Your task to perform on an android device: empty trash in google photos Image 0: 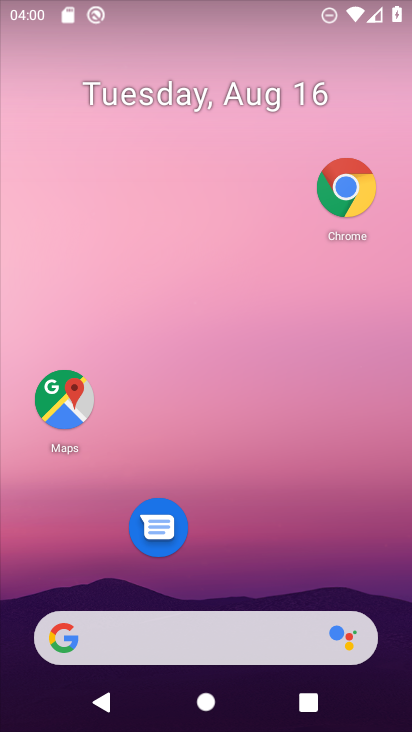
Step 0: drag from (232, 583) to (234, 23)
Your task to perform on an android device: empty trash in google photos Image 1: 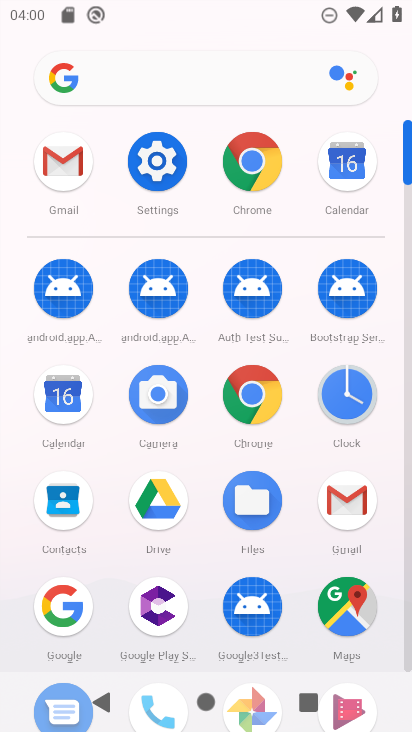
Step 1: drag from (204, 564) to (236, 126)
Your task to perform on an android device: empty trash in google photos Image 2: 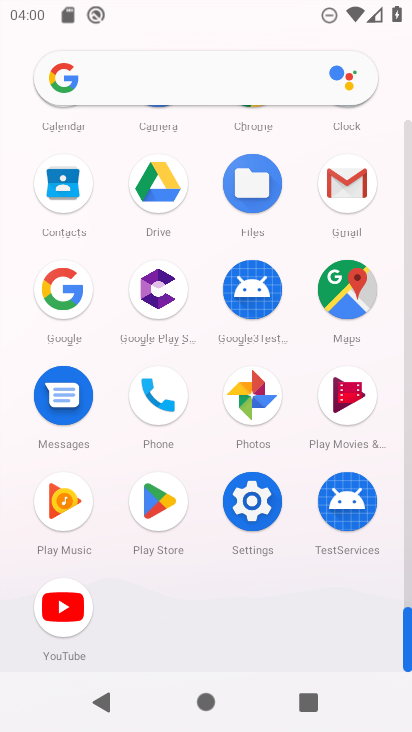
Step 2: click (250, 388)
Your task to perform on an android device: empty trash in google photos Image 3: 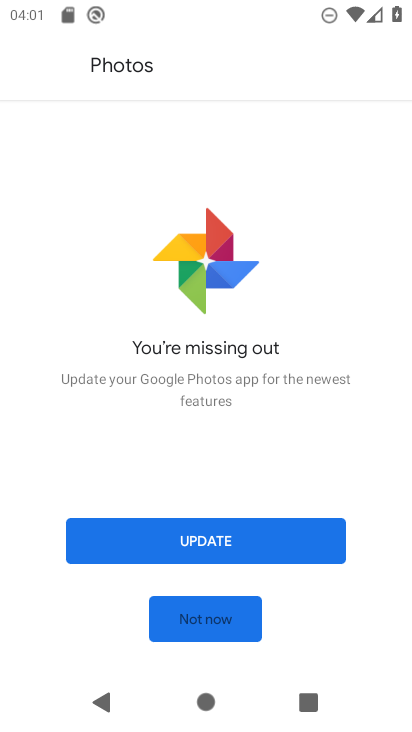
Step 3: click (208, 536)
Your task to perform on an android device: empty trash in google photos Image 4: 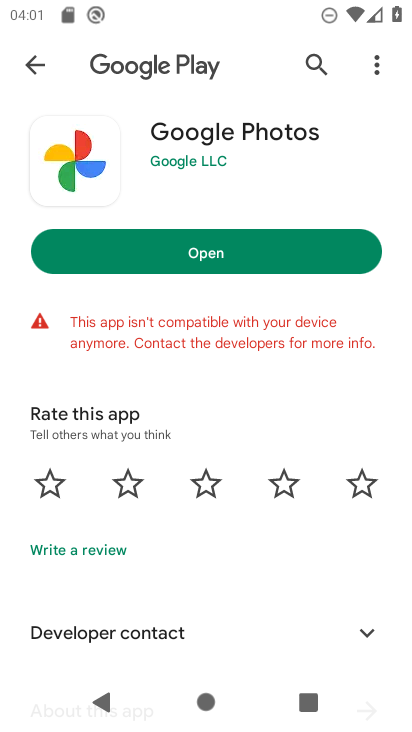
Step 4: click (205, 254)
Your task to perform on an android device: empty trash in google photos Image 5: 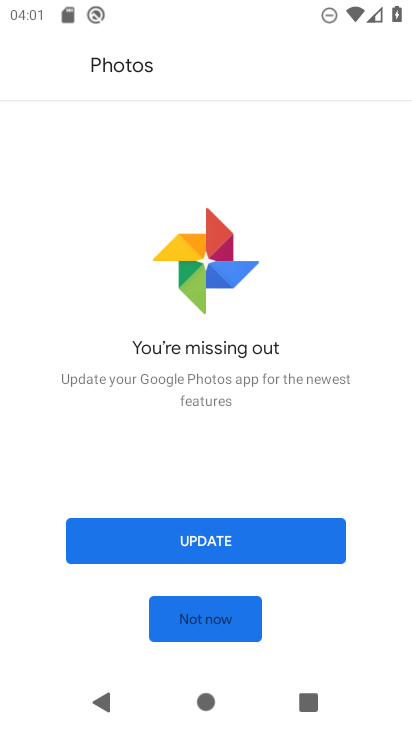
Step 5: click (210, 537)
Your task to perform on an android device: empty trash in google photos Image 6: 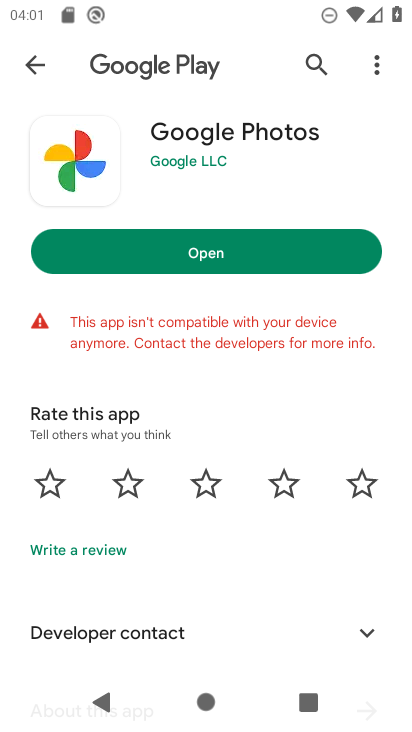
Step 6: task complete